Your task to perform on an android device: change the clock style Image 0: 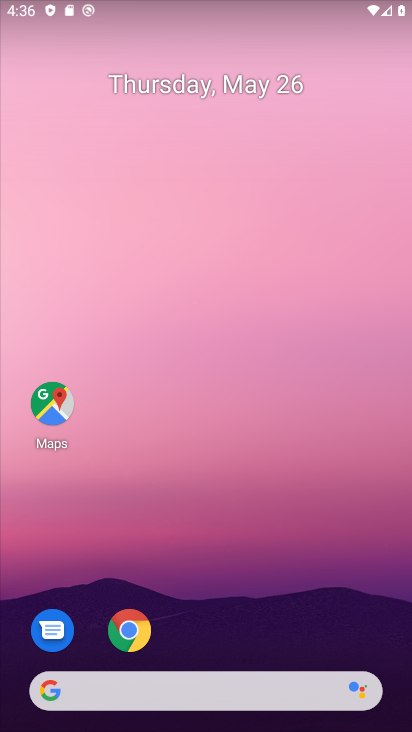
Step 0: drag from (181, 669) to (203, 88)
Your task to perform on an android device: change the clock style Image 1: 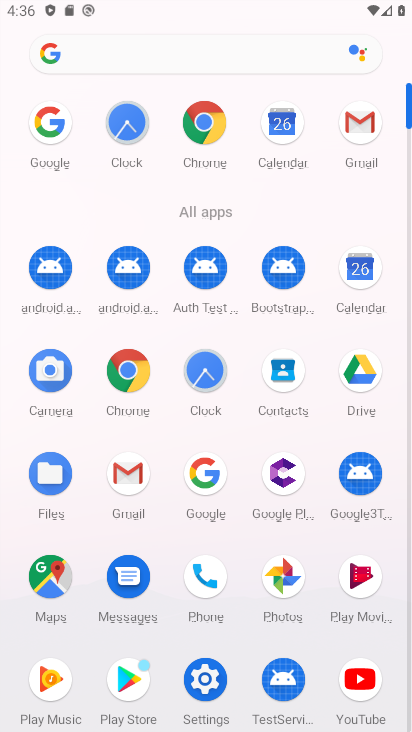
Step 1: click (199, 371)
Your task to perform on an android device: change the clock style Image 2: 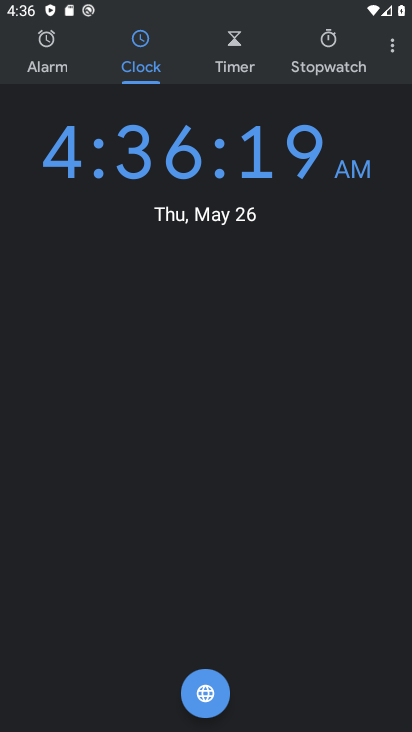
Step 2: click (393, 44)
Your task to perform on an android device: change the clock style Image 3: 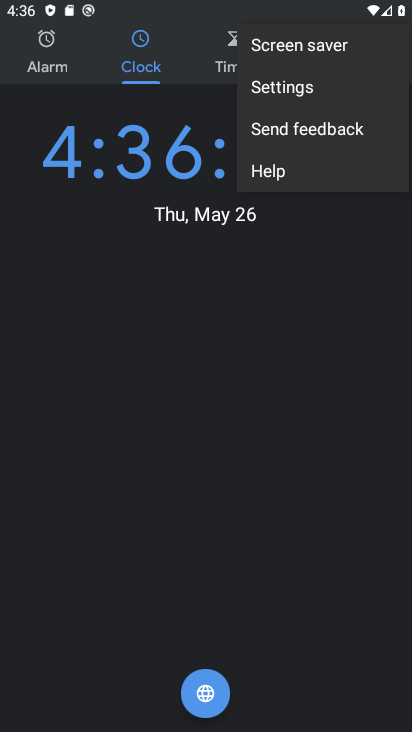
Step 3: click (266, 96)
Your task to perform on an android device: change the clock style Image 4: 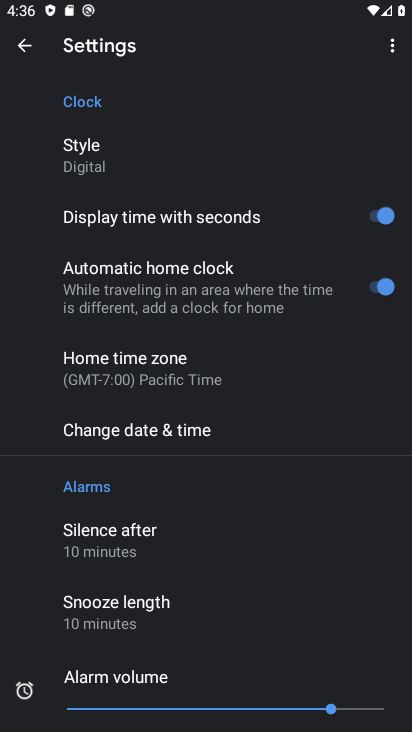
Step 4: click (100, 171)
Your task to perform on an android device: change the clock style Image 5: 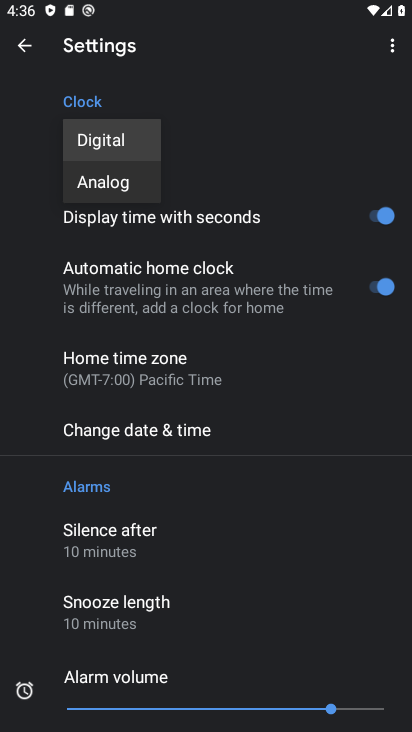
Step 5: click (109, 183)
Your task to perform on an android device: change the clock style Image 6: 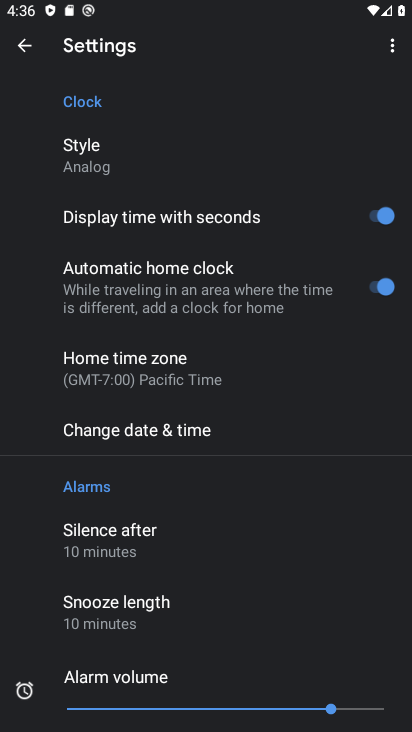
Step 6: task complete